Your task to perform on an android device: turn off priority inbox in the gmail app Image 0: 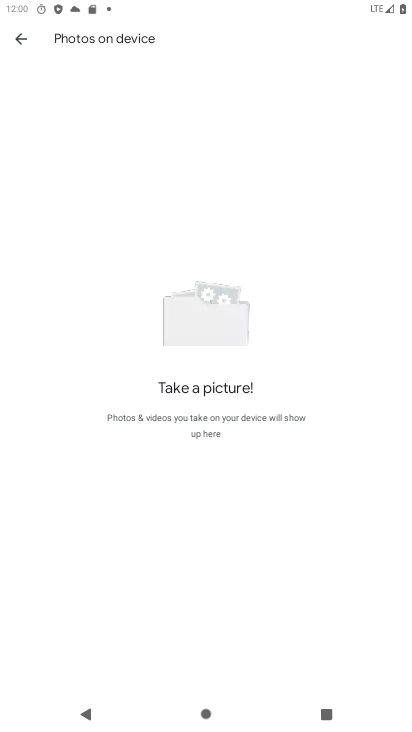
Step 0: press home button
Your task to perform on an android device: turn off priority inbox in the gmail app Image 1: 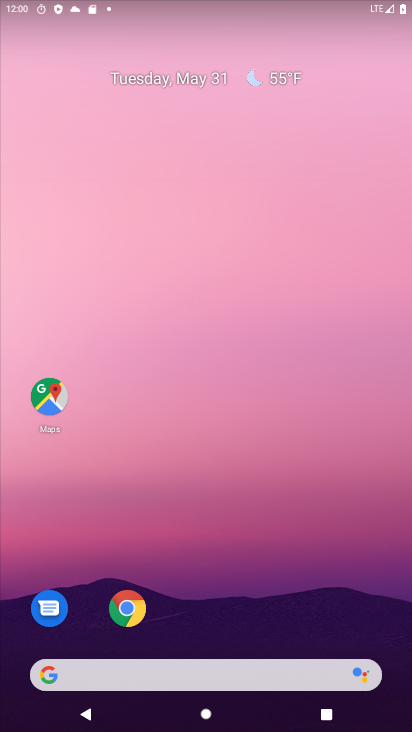
Step 1: drag from (229, 561) to (244, 11)
Your task to perform on an android device: turn off priority inbox in the gmail app Image 2: 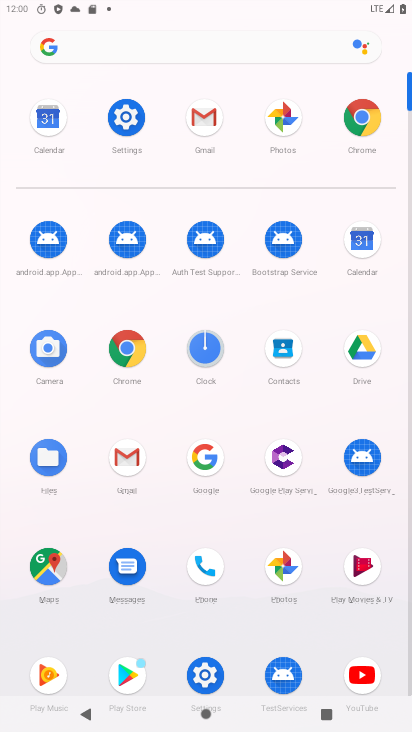
Step 2: click (202, 122)
Your task to perform on an android device: turn off priority inbox in the gmail app Image 3: 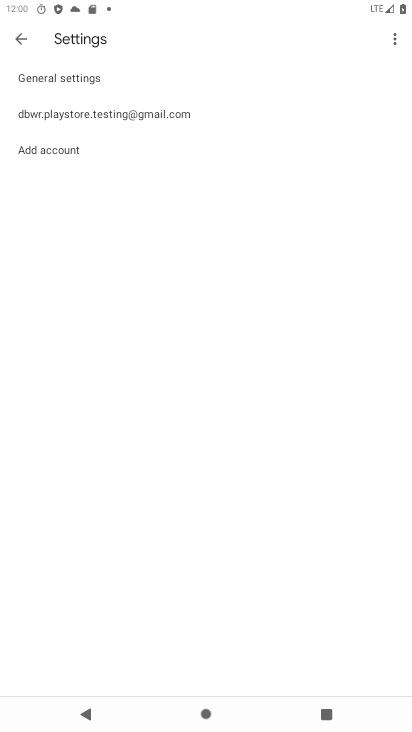
Step 3: click (76, 115)
Your task to perform on an android device: turn off priority inbox in the gmail app Image 4: 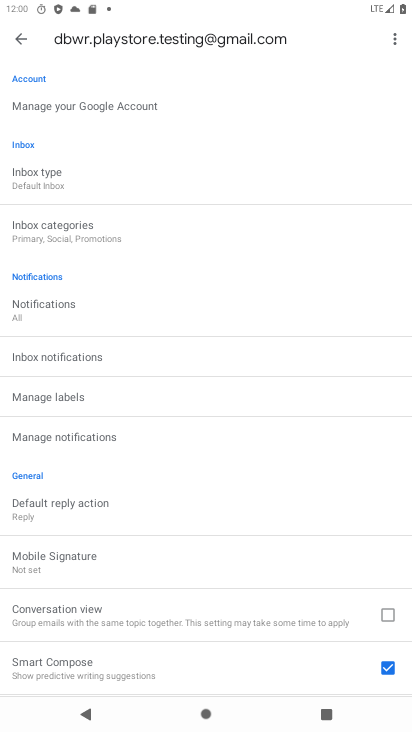
Step 4: click (32, 177)
Your task to perform on an android device: turn off priority inbox in the gmail app Image 5: 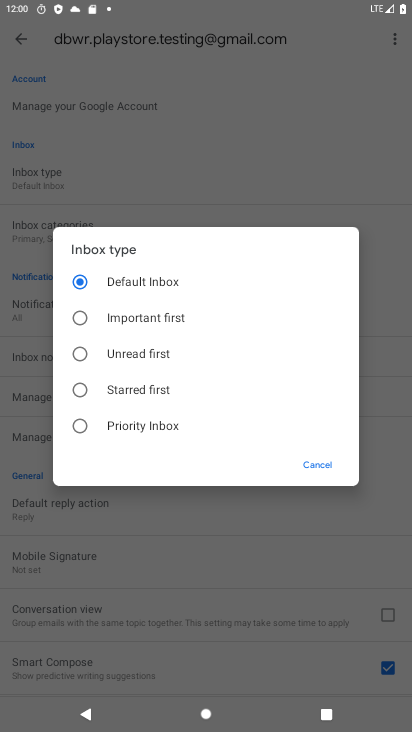
Step 5: task complete